Your task to perform on an android device: Search for Italian restaurants on Maps Image 0: 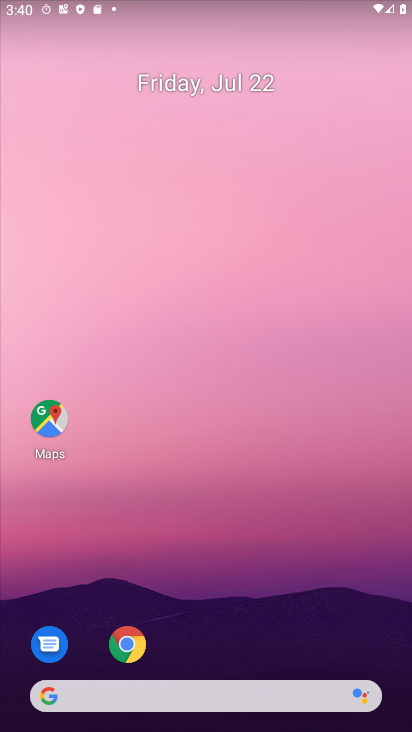
Step 0: drag from (226, 654) to (197, 62)
Your task to perform on an android device: Search for Italian restaurants on Maps Image 1: 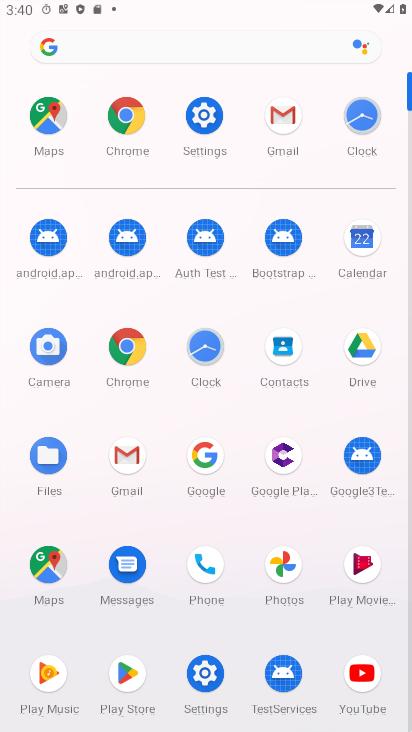
Step 1: click (47, 125)
Your task to perform on an android device: Search for Italian restaurants on Maps Image 2: 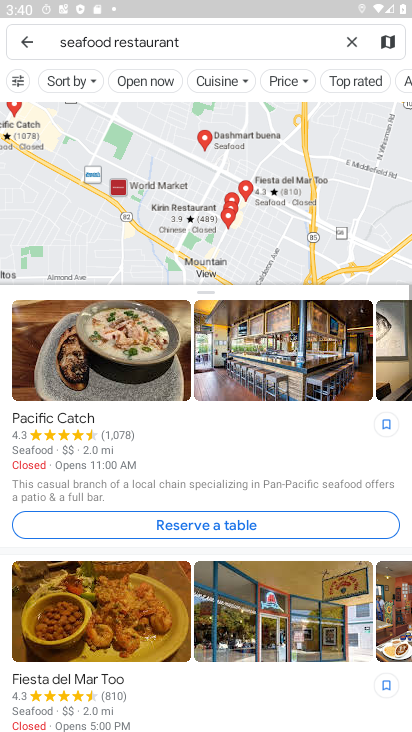
Step 2: click (349, 41)
Your task to perform on an android device: Search for Italian restaurants on Maps Image 3: 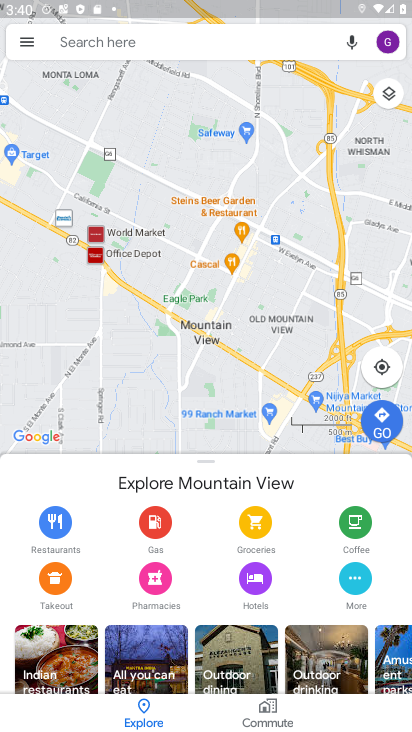
Step 3: click (181, 45)
Your task to perform on an android device: Search for Italian restaurants on Maps Image 4: 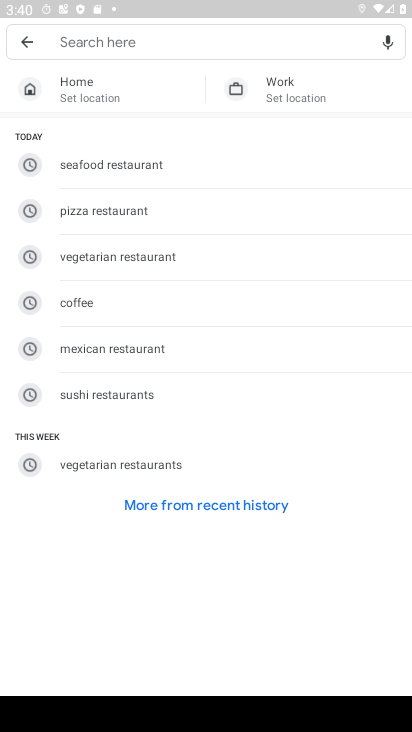
Step 4: type "Italian restaurants"
Your task to perform on an android device: Search for Italian restaurants on Maps Image 5: 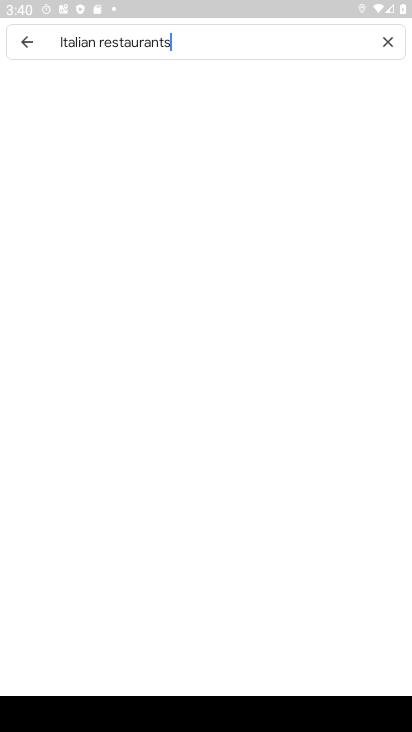
Step 5: press enter
Your task to perform on an android device: Search for Italian restaurants on Maps Image 6: 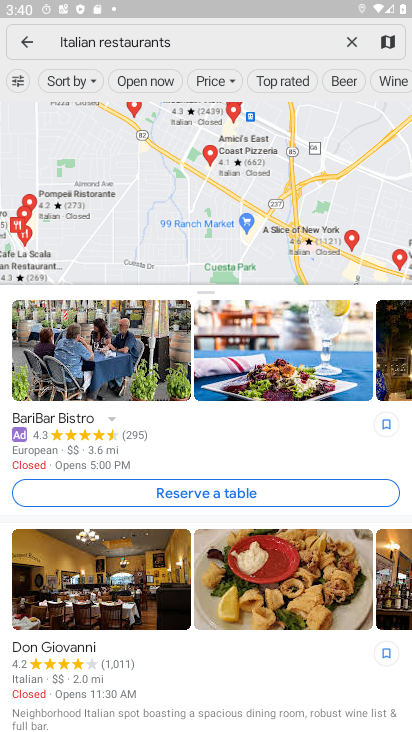
Step 6: task complete